Your task to perform on an android device: turn on showing notifications on the lock screen Image 0: 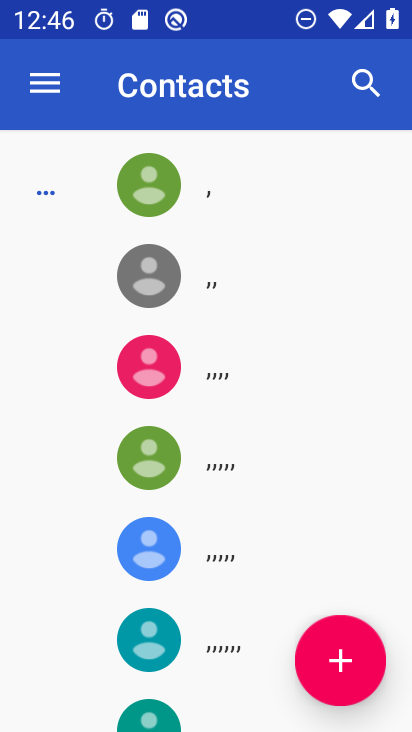
Step 0: press home button
Your task to perform on an android device: turn on showing notifications on the lock screen Image 1: 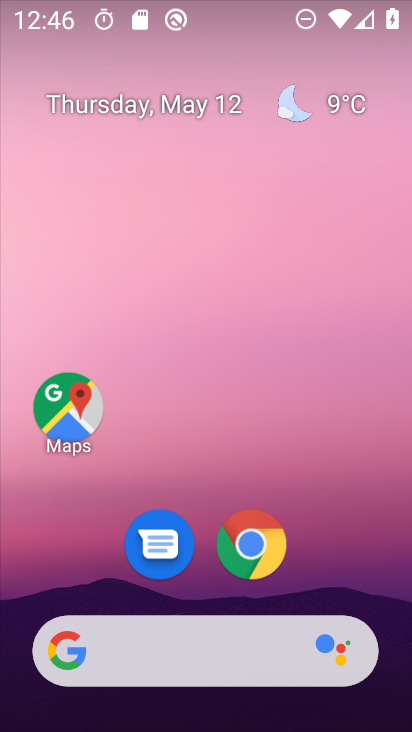
Step 1: drag from (204, 716) to (220, 101)
Your task to perform on an android device: turn on showing notifications on the lock screen Image 2: 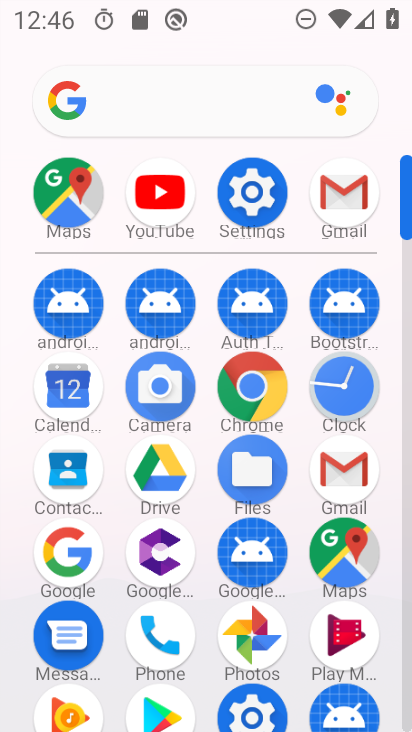
Step 2: click (250, 188)
Your task to perform on an android device: turn on showing notifications on the lock screen Image 3: 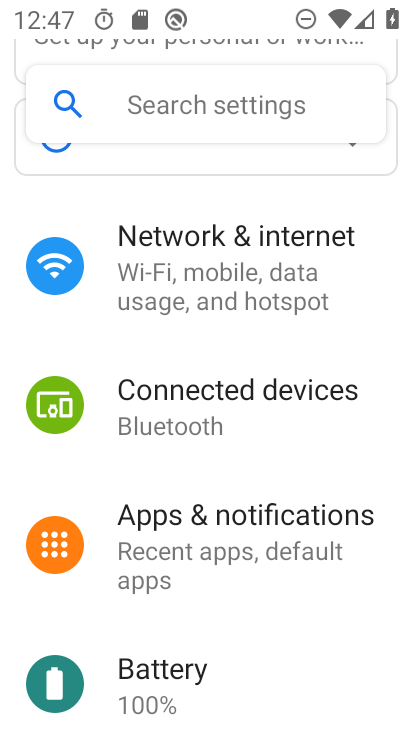
Step 3: click (226, 531)
Your task to perform on an android device: turn on showing notifications on the lock screen Image 4: 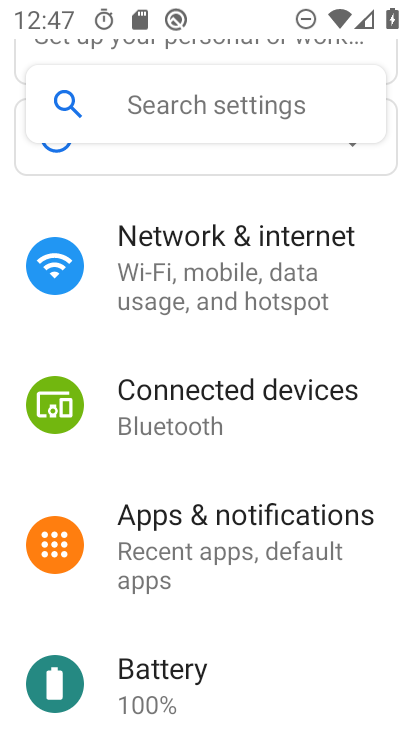
Step 4: click (233, 514)
Your task to perform on an android device: turn on showing notifications on the lock screen Image 5: 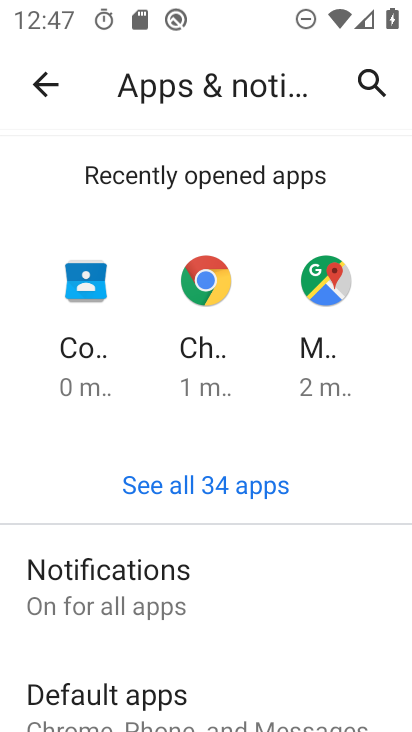
Step 5: click (124, 587)
Your task to perform on an android device: turn on showing notifications on the lock screen Image 6: 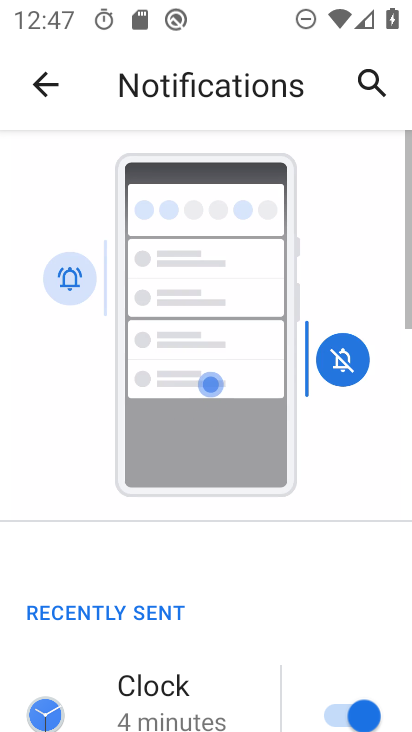
Step 6: drag from (255, 659) to (268, 226)
Your task to perform on an android device: turn on showing notifications on the lock screen Image 7: 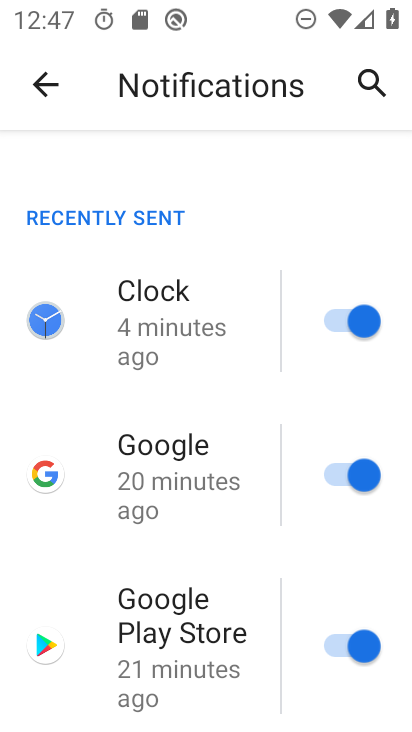
Step 7: drag from (260, 695) to (265, 307)
Your task to perform on an android device: turn on showing notifications on the lock screen Image 8: 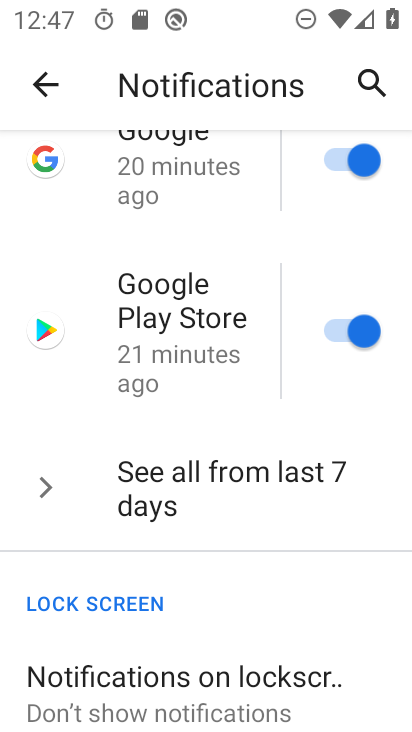
Step 8: drag from (262, 655) to (267, 327)
Your task to perform on an android device: turn on showing notifications on the lock screen Image 9: 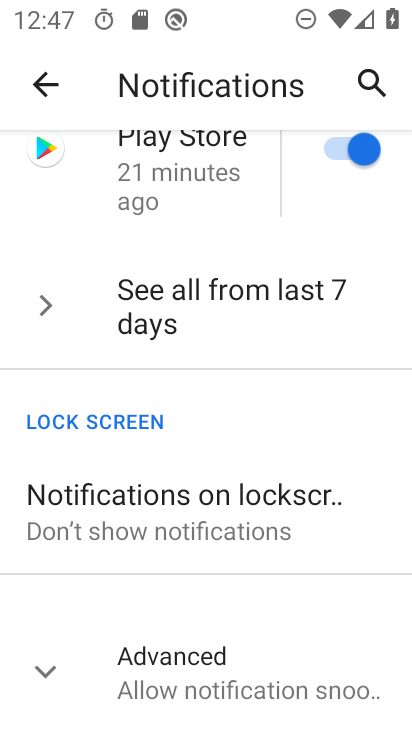
Step 9: click (143, 509)
Your task to perform on an android device: turn on showing notifications on the lock screen Image 10: 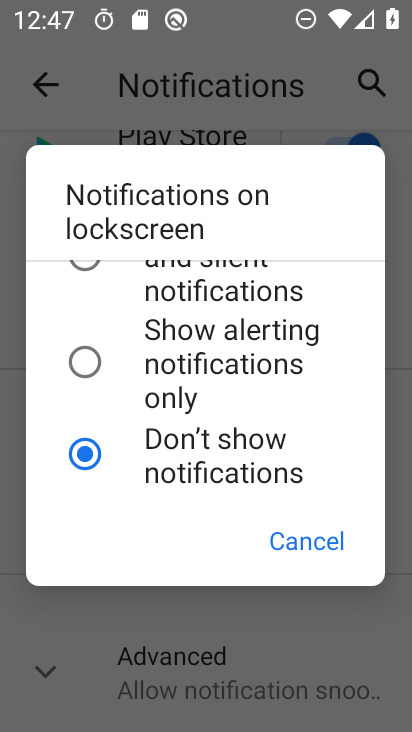
Step 10: click (78, 259)
Your task to perform on an android device: turn on showing notifications on the lock screen Image 11: 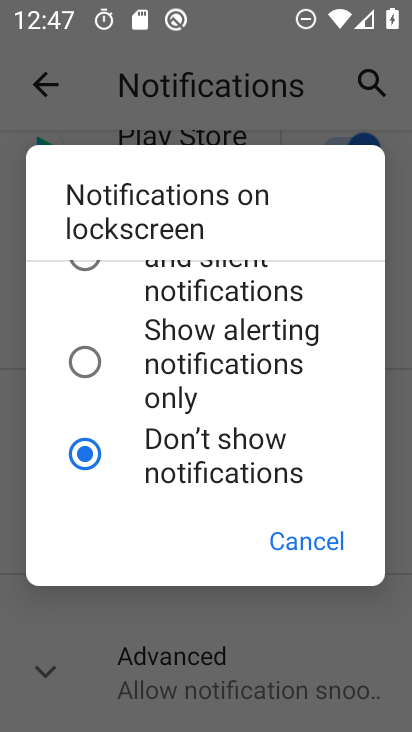
Step 11: drag from (327, 281) to (348, 507)
Your task to perform on an android device: turn on showing notifications on the lock screen Image 12: 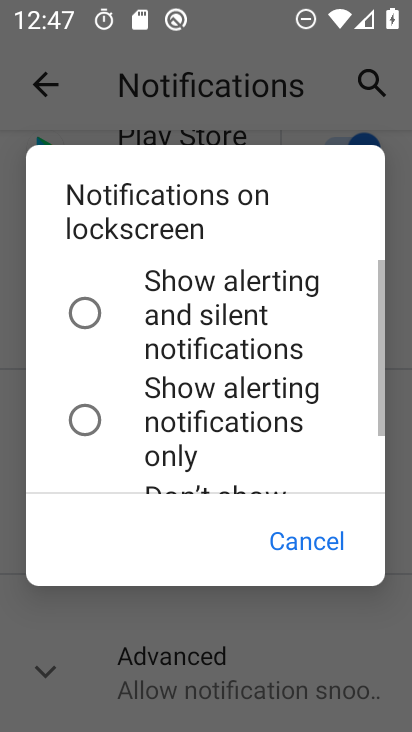
Step 12: click (78, 310)
Your task to perform on an android device: turn on showing notifications on the lock screen Image 13: 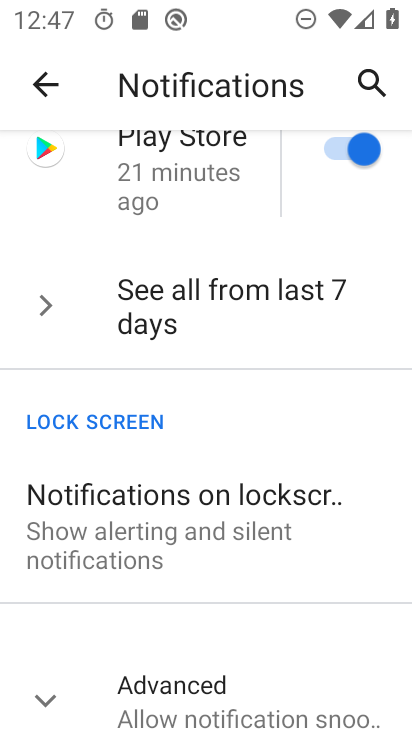
Step 13: task complete